Your task to perform on an android device: Open Android settings Image 0: 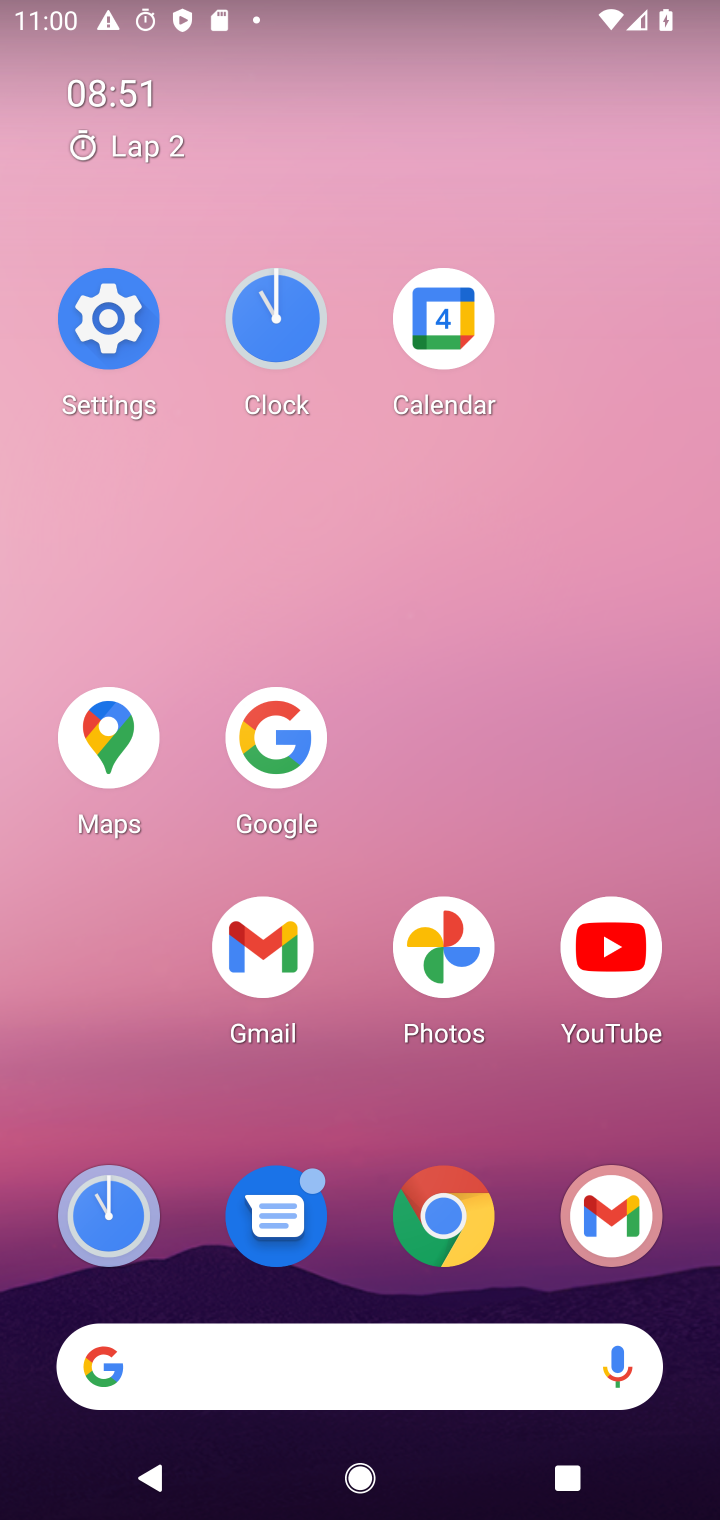
Step 0: click (151, 318)
Your task to perform on an android device: Open Android settings Image 1: 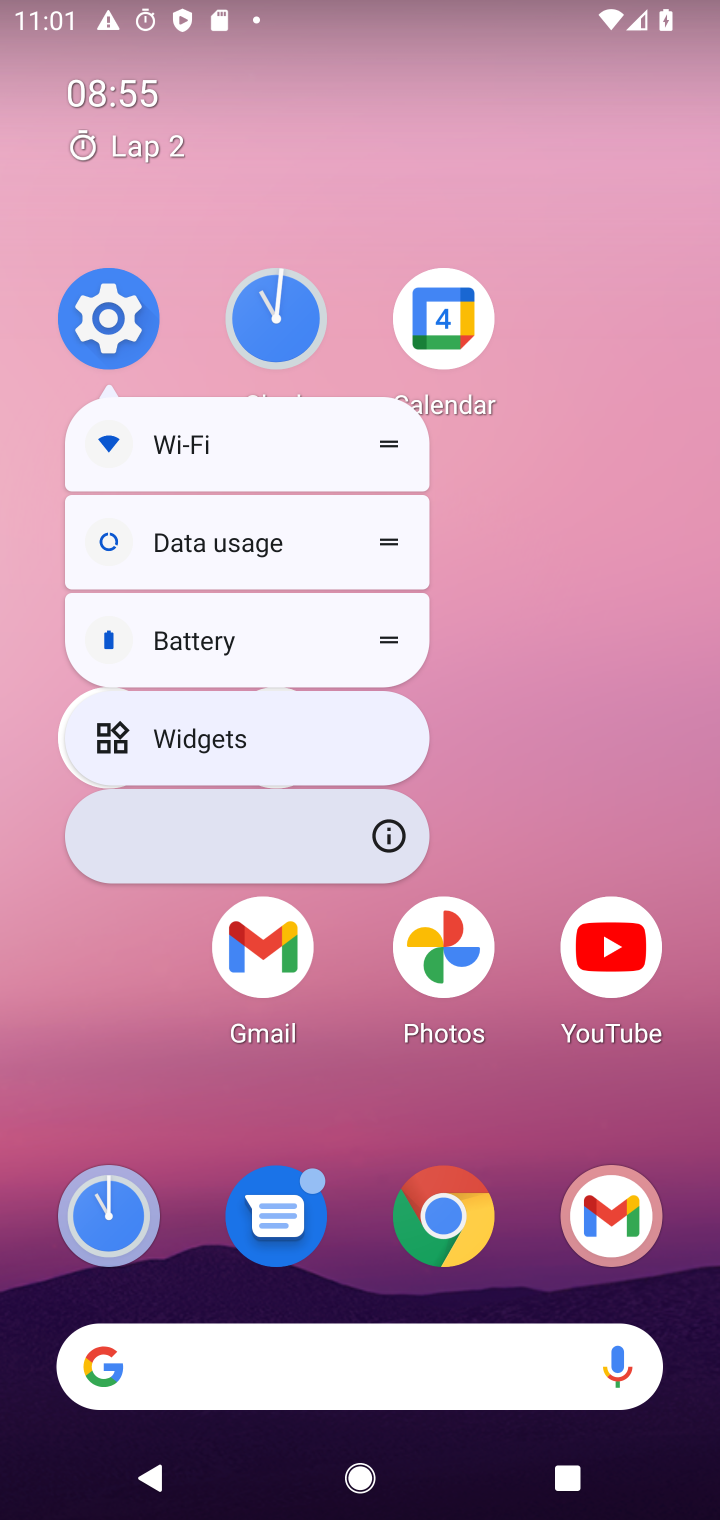
Step 1: click (153, 305)
Your task to perform on an android device: Open Android settings Image 2: 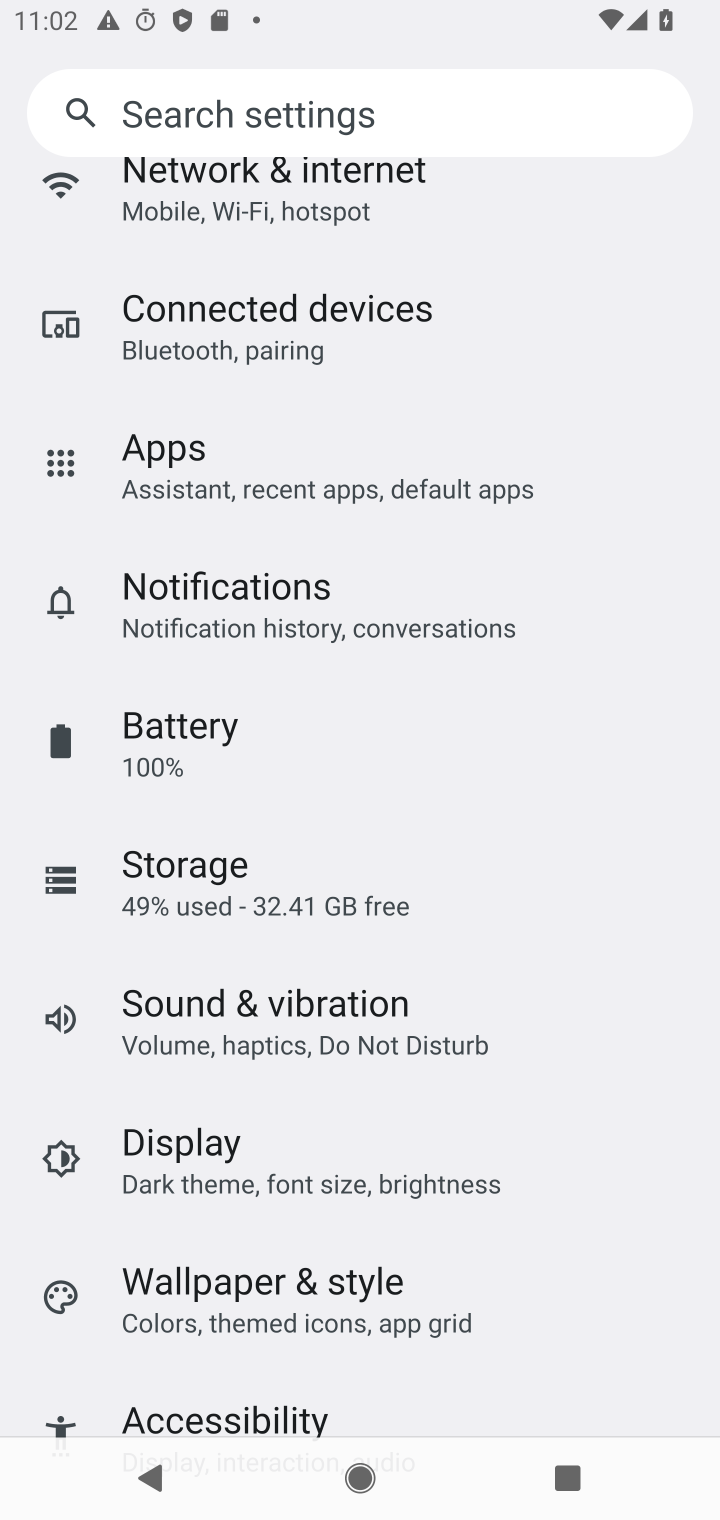
Step 2: task complete